Your task to perform on an android device: Search for vegetarian restaurants on Maps Image 0: 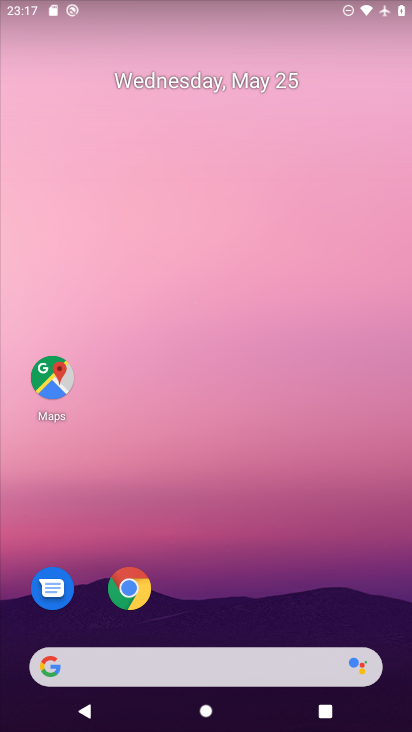
Step 0: click (62, 368)
Your task to perform on an android device: Search for vegetarian restaurants on Maps Image 1: 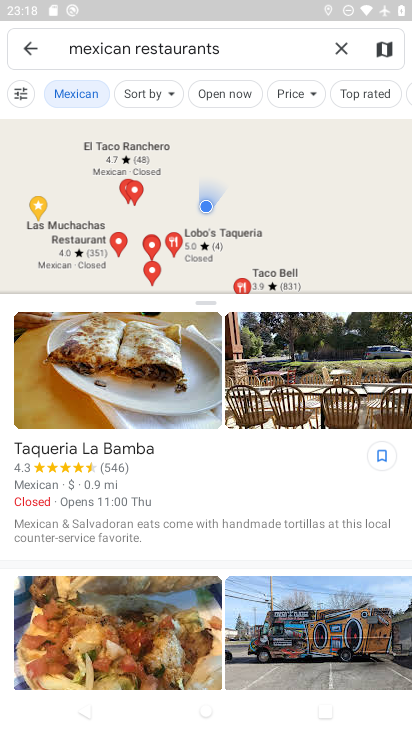
Step 1: click (267, 51)
Your task to perform on an android device: Search for vegetarian restaurants on Maps Image 2: 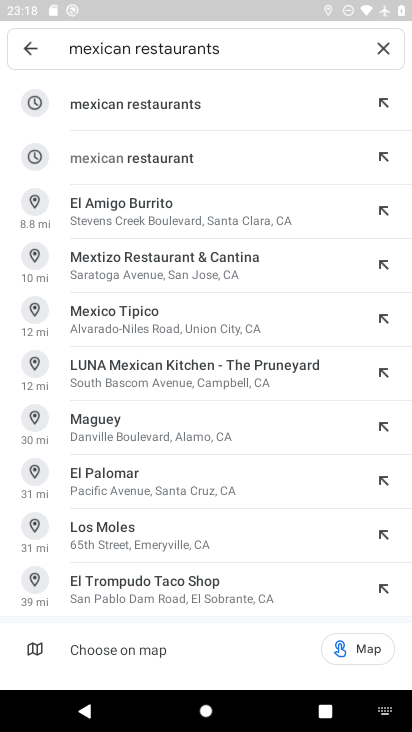
Step 2: click (391, 47)
Your task to perform on an android device: Search for vegetarian restaurants on Maps Image 3: 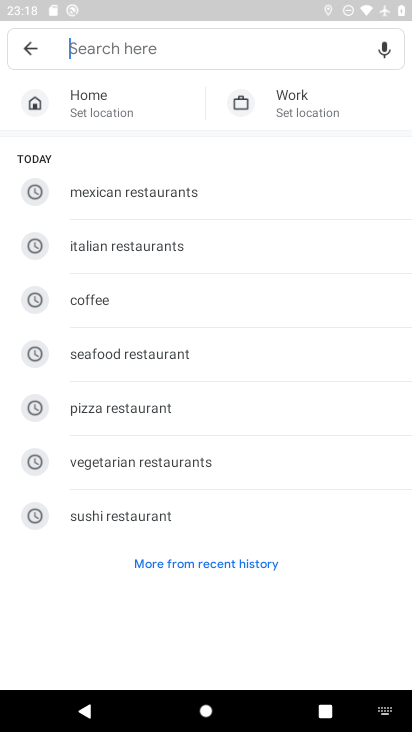
Step 3: click (230, 451)
Your task to perform on an android device: Search for vegetarian restaurants on Maps Image 4: 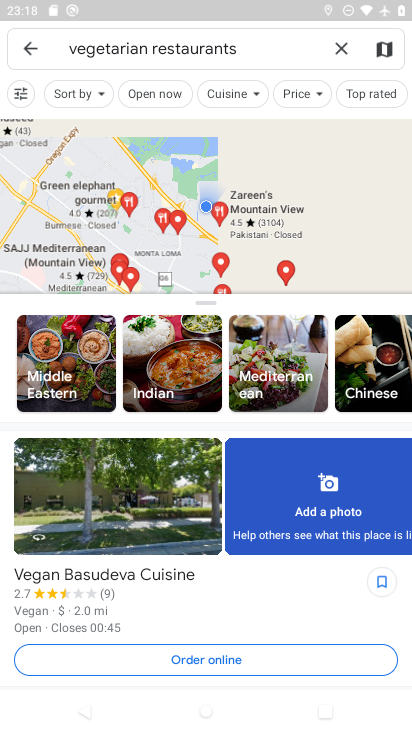
Step 4: task complete